Your task to perform on an android device: Go to network settings Image 0: 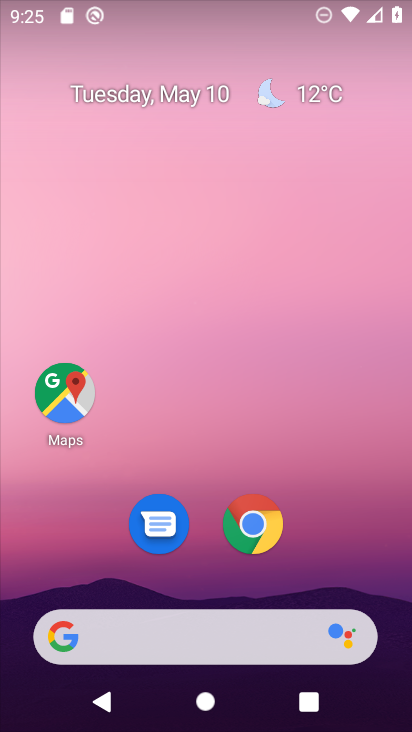
Step 0: drag from (242, 460) to (235, 1)
Your task to perform on an android device: Go to network settings Image 1: 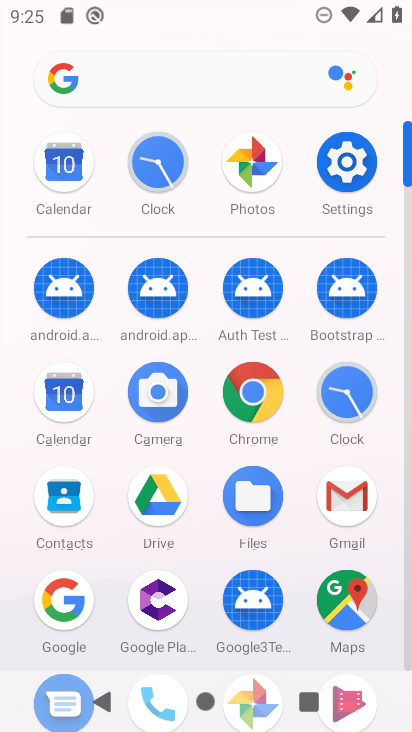
Step 1: click (350, 152)
Your task to perform on an android device: Go to network settings Image 2: 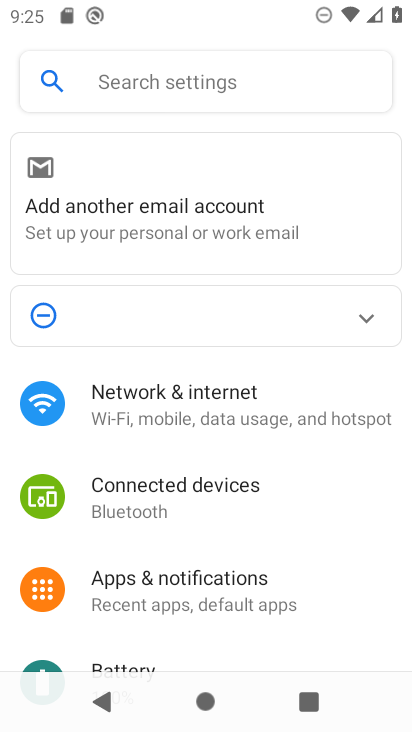
Step 2: click (174, 392)
Your task to perform on an android device: Go to network settings Image 3: 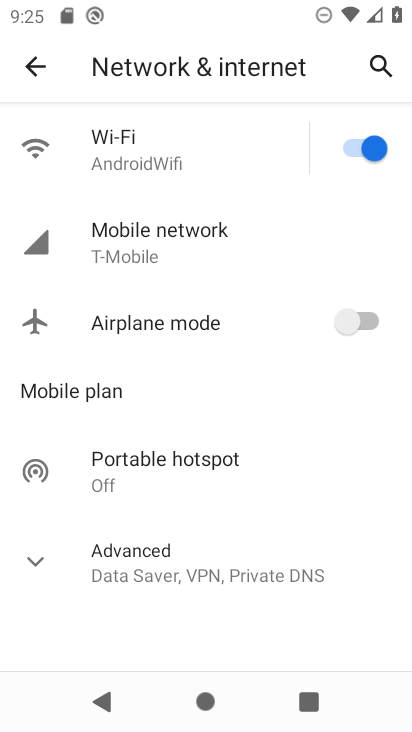
Step 3: task complete